Your task to perform on an android device: Show me popular videos on Youtube Image 0: 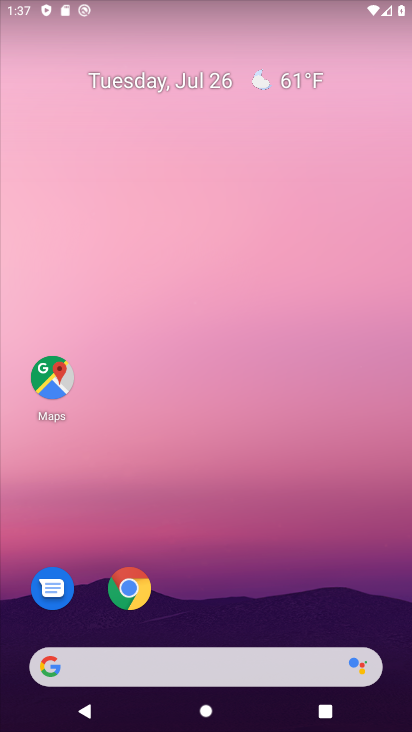
Step 0: drag from (327, 538) to (367, 108)
Your task to perform on an android device: Show me popular videos on Youtube Image 1: 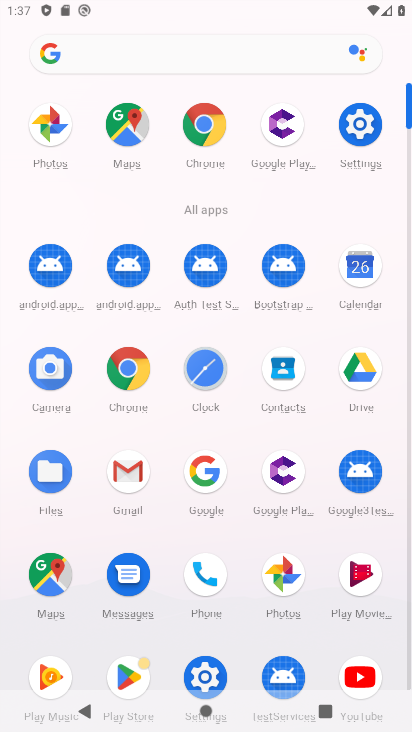
Step 1: click (373, 675)
Your task to perform on an android device: Show me popular videos on Youtube Image 2: 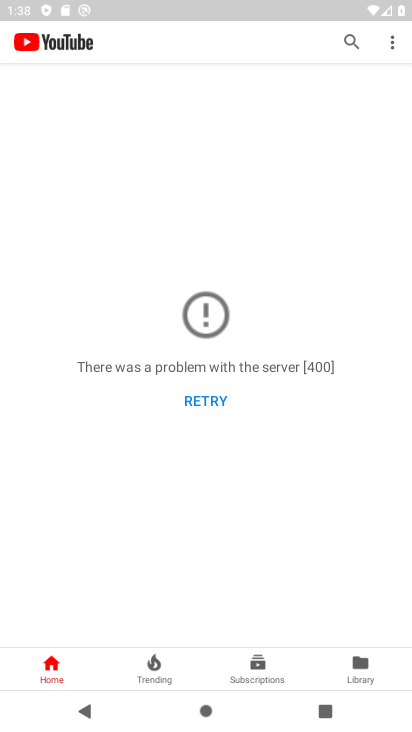
Step 2: click (344, 35)
Your task to perform on an android device: Show me popular videos on Youtube Image 3: 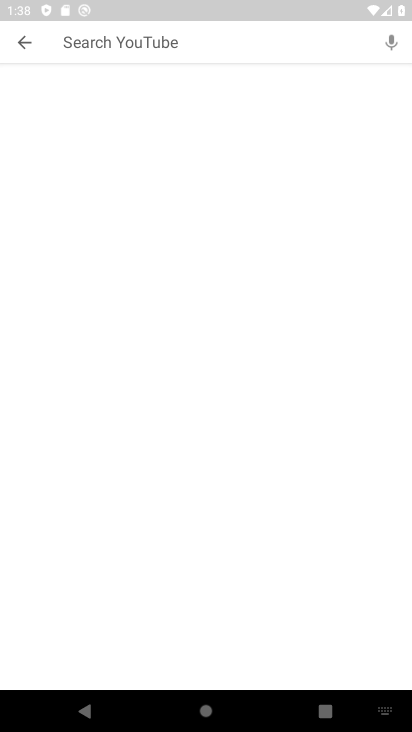
Step 3: type " popular videos"
Your task to perform on an android device: Show me popular videos on Youtube Image 4: 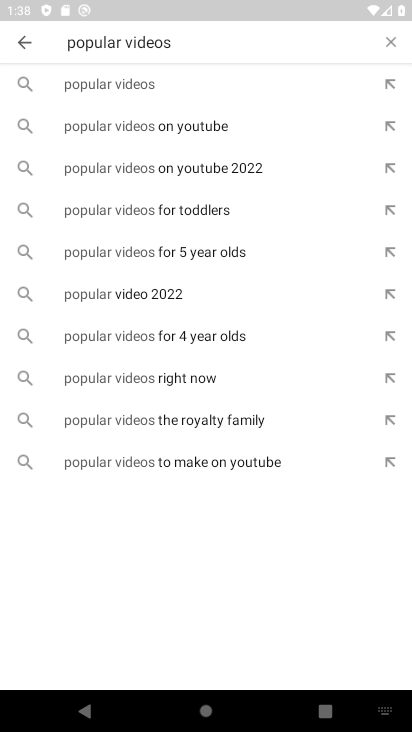
Step 4: click (121, 85)
Your task to perform on an android device: Show me popular videos on Youtube Image 5: 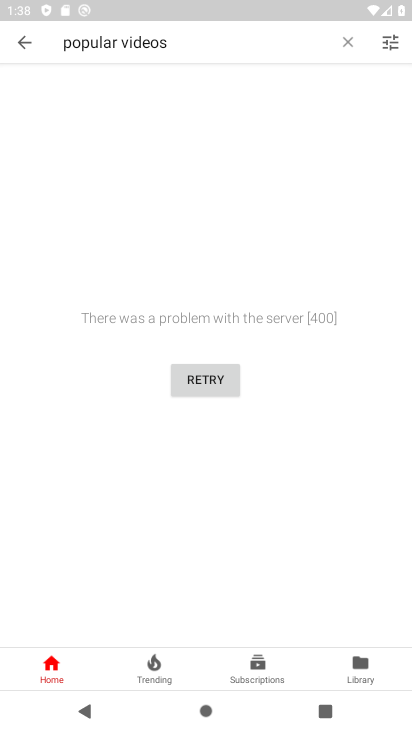
Step 5: click (226, 383)
Your task to perform on an android device: Show me popular videos on Youtube Image 6: 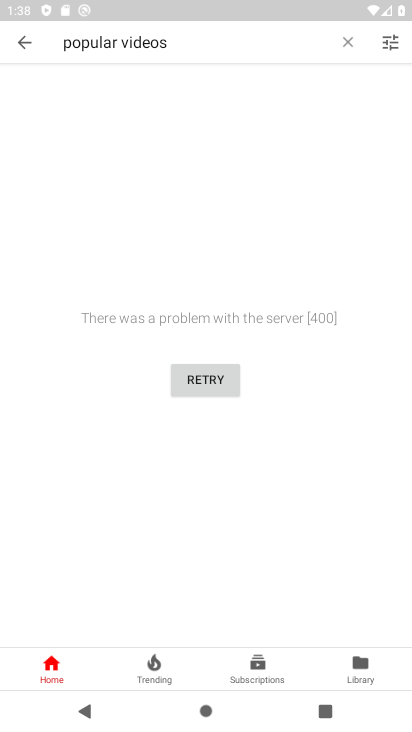
Step 6: task complete